Your task to perform on an android device: turn off data saver in the chrome app Image 0: 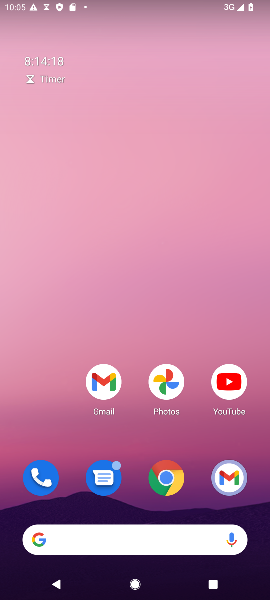
Step 0: click (171, 469)
Your task to perform on an android device: turn off data saver in the chrome app Image 1: 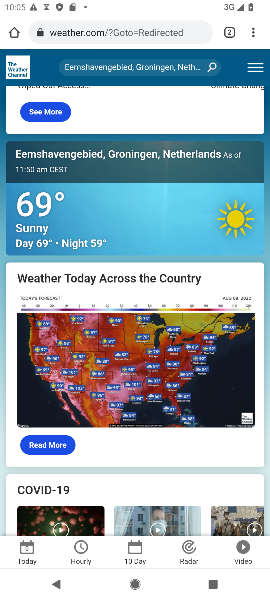
Step 1: click (251, 22)
Your task to perform on an android device: turn off data saver in the chrome app Image 2: 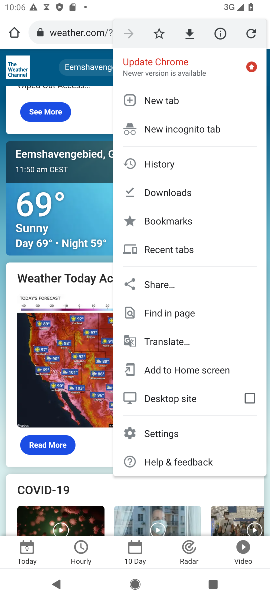
Step 2: click (169, 424)
Your task to perform on an android device: turn off data saver in the chrome app Image 3: 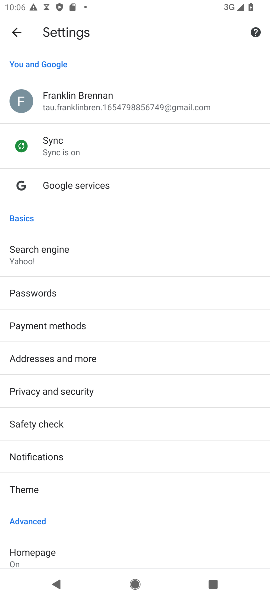
Step 3: drag from (94, 517) to (52, 172)
Your task to perform on an android device: turn off data saver in the chrome app Image 4: 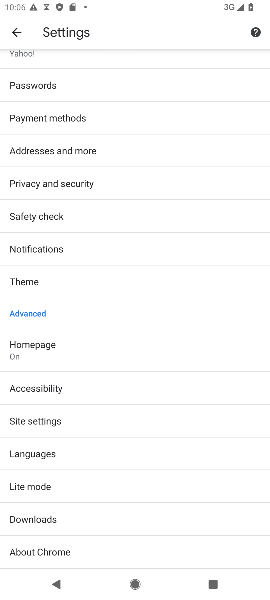
Step 4: click (164, 493)
Your task to perform on an android device: turn off data saver in the chrome app Image 5: 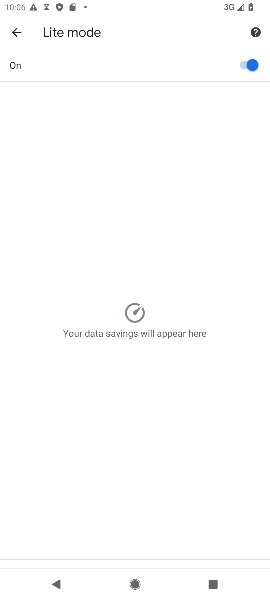
Step 5: click (244, 68)
Your task to perform on an android device: turn off data saver in the chrome app Image 6: 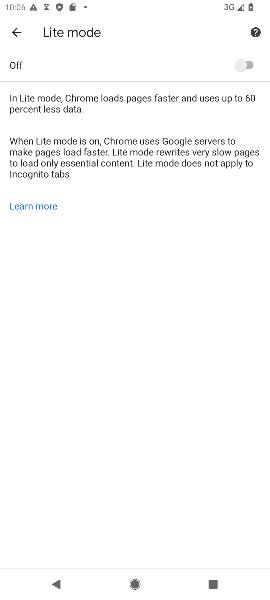
Step 6: task complete